Your task to perform on an android device: Open Youtube and go to "Your channel" Image 0: 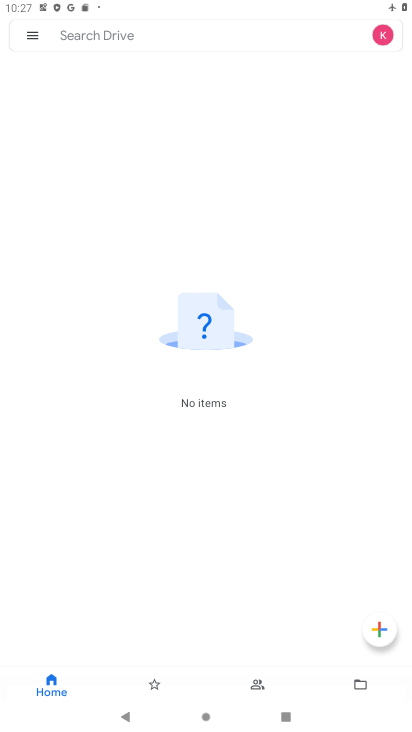
Step 0: press home button
Your task to perform on an android device: Open Youtube and go to "Your channel" Image 1: 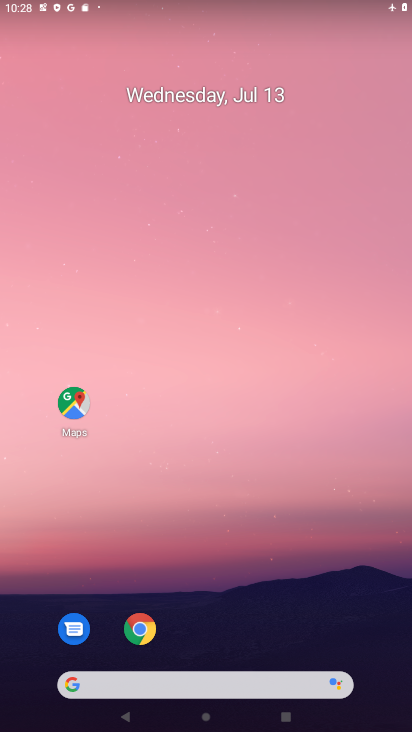
Step 1: drag from (227, 630) to (242, 223)
Your task to perform on an android device: Open Youtube and go to "Your channel" Image 2: 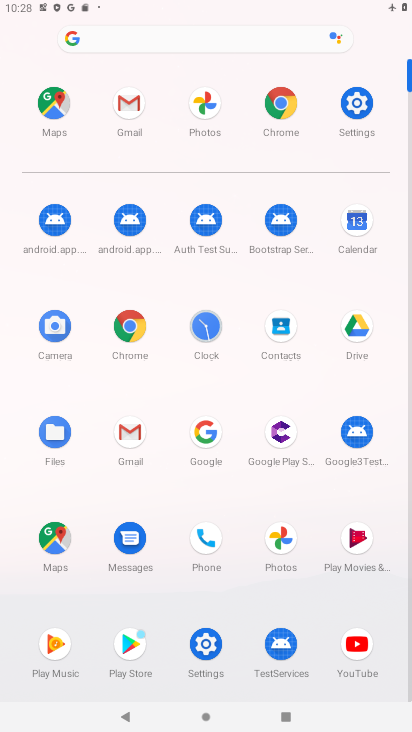
Step 2: click (348, 633)
Your task to perform on an android device: Open Youtube and go to "Your channel" Image 3: 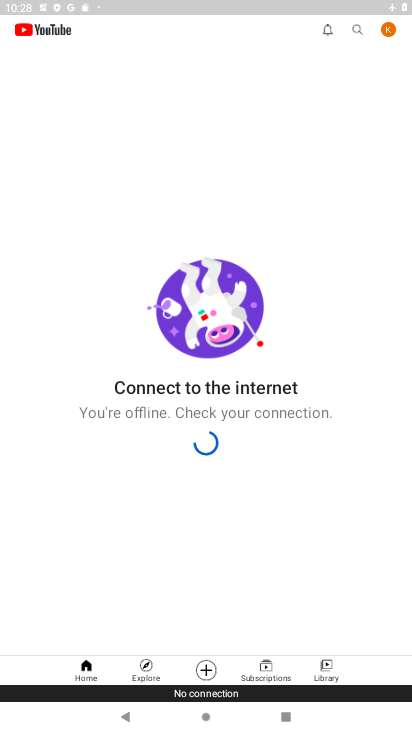
Step 3: click (392, 20)
Your task to perform on an android device: Open Youtube and go to "Your channel" Image 4: 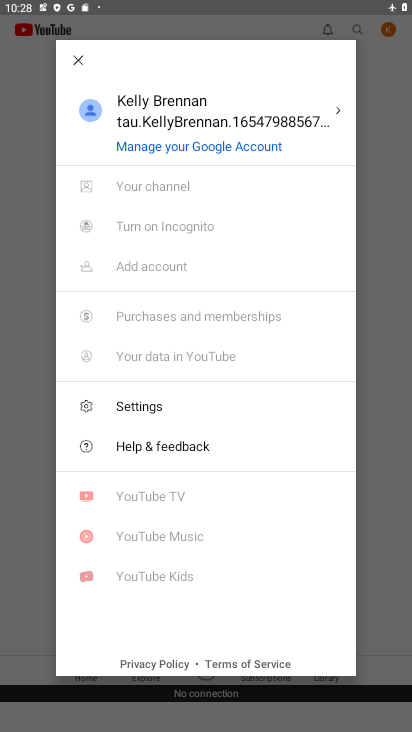
Step 4: click (182, 195)
Your task to perform on an android device: Open Youtube and go to "Your channel" Image 5: 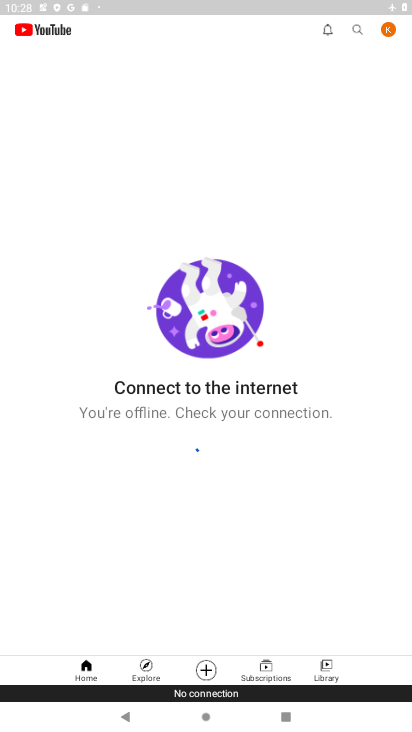
Step 5: task complete